Your task to perform on an android device: Show me recent news Image 0: 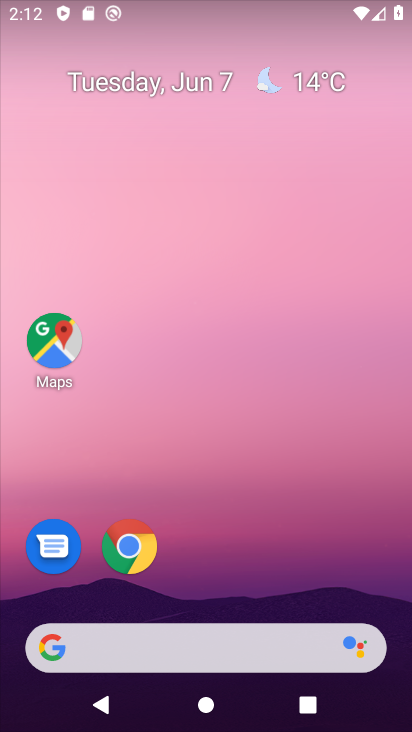
Step 0: click (127, 542)
Your task to perform on an android device: Show me recent news Image 1: 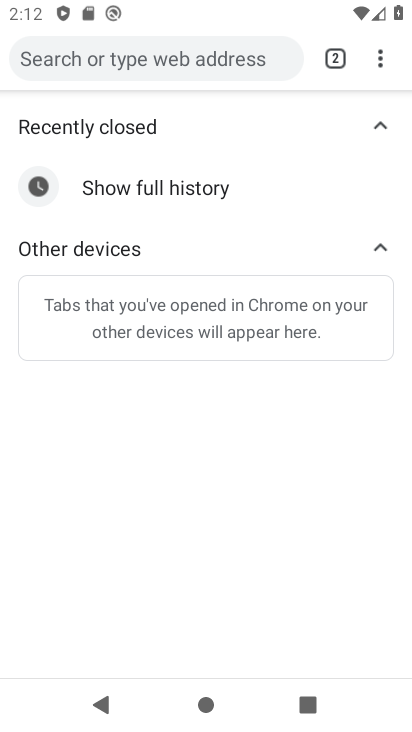
Step 1: click (347, 71)
Your task to perform on an android device: Show me recent news Image 2: 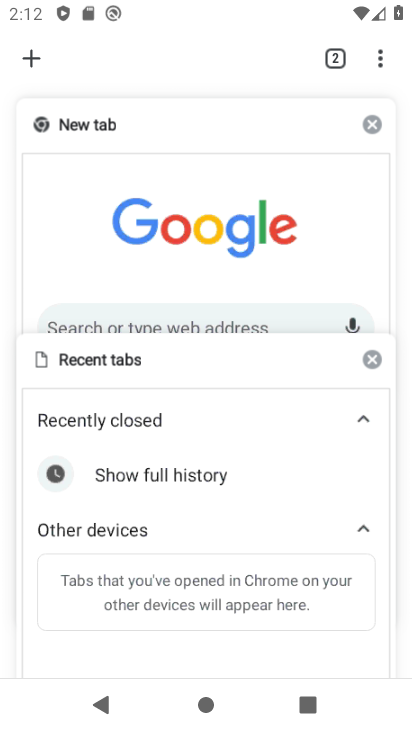
Step 2: click (39, 52)
Your task to perform on an android device: Show me recent news Image 3: 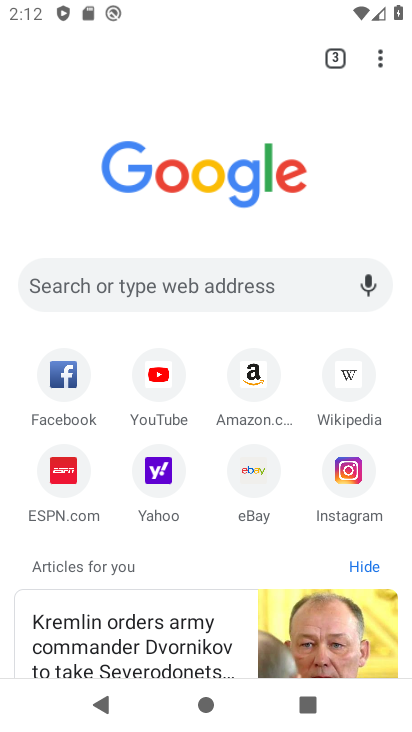
Step 3: task complete